Your task to perform on an android device: Search for pizza restaurants on Maps Image 0: 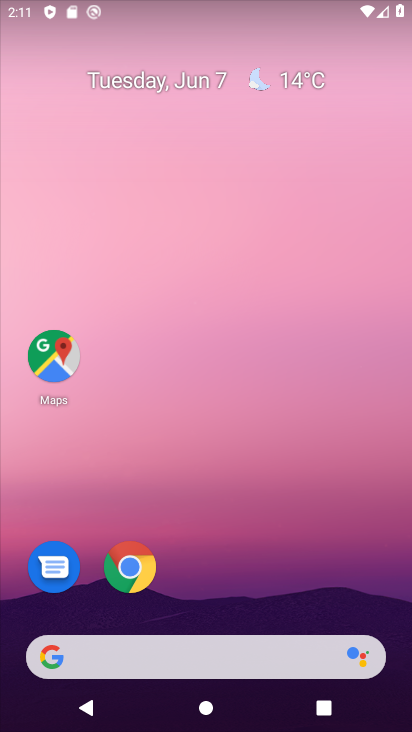
Step 0: click (59, 358)
Your task to perform on an android device: Search for pizza restaurants on Maps Image 1: 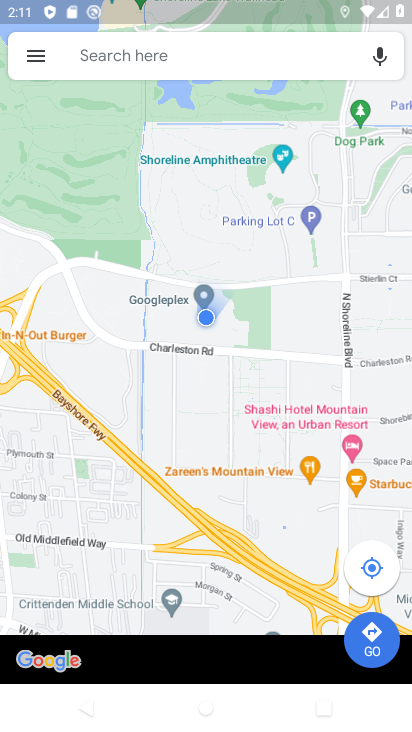
Step 1: click (212, 66)
Your task to perform on an android device: Search for pizza restaurants on Maps Image 2: 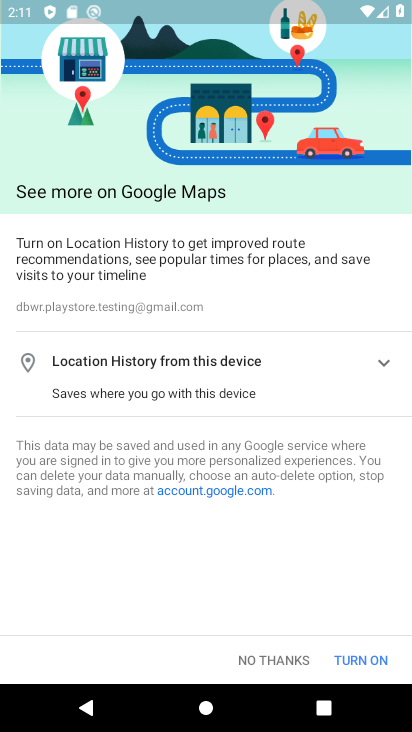
Step 2: click (354, 661)
Your task to perform on an android device: Search for pizza restaurants on Maps Image 3: 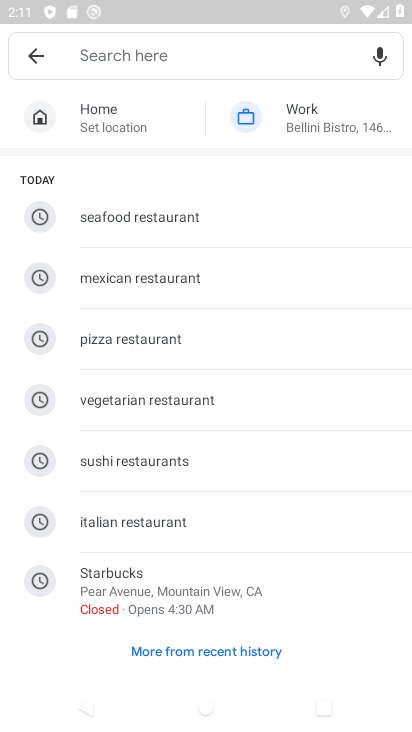
Step 3: click (198, 328)
Your task to perform on an android device: Search for pizza restaurants on Maps Image 4: 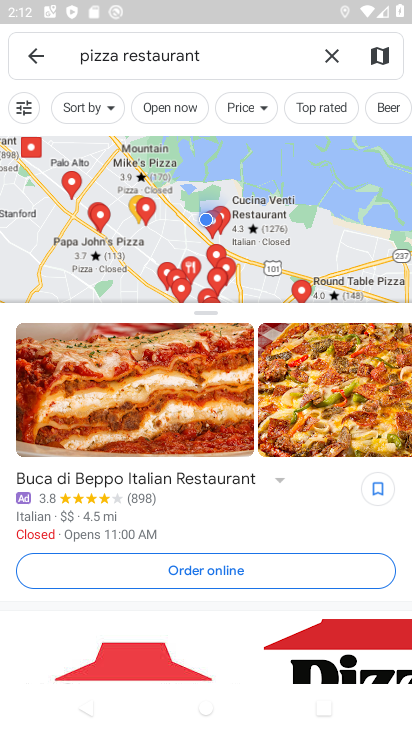
Step 4: task complete